Your task to perform on an android device: What's on my calendar today? Image 0: 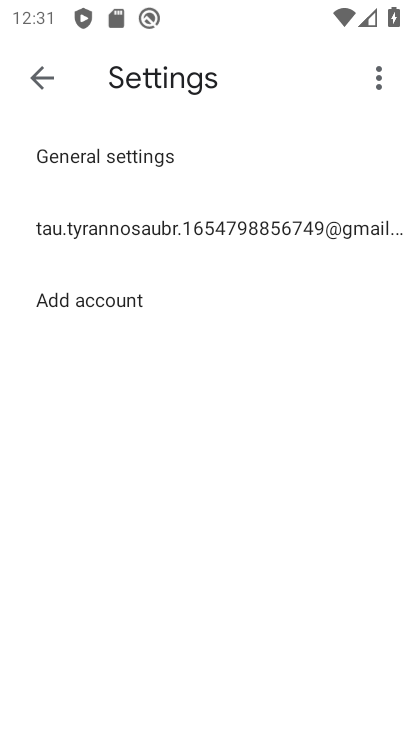
Step 0: press home button
Your task to perform on an android device: What's on my calendar today? Image 1: 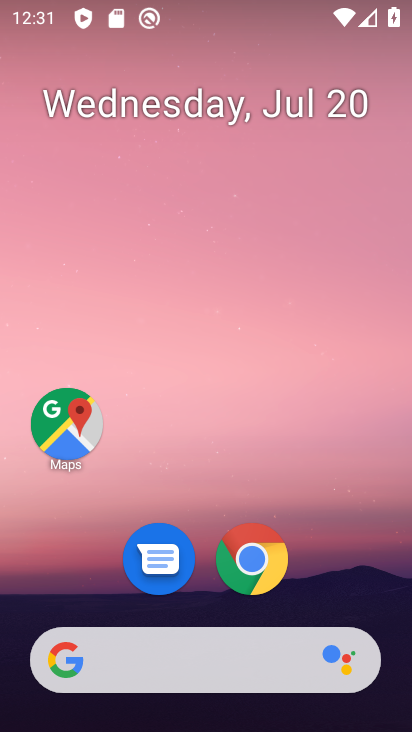
Step 1: drag from (356, 576) to (364, 99)
Your task to perform on an android device: What's on my calendar today? Image 2: 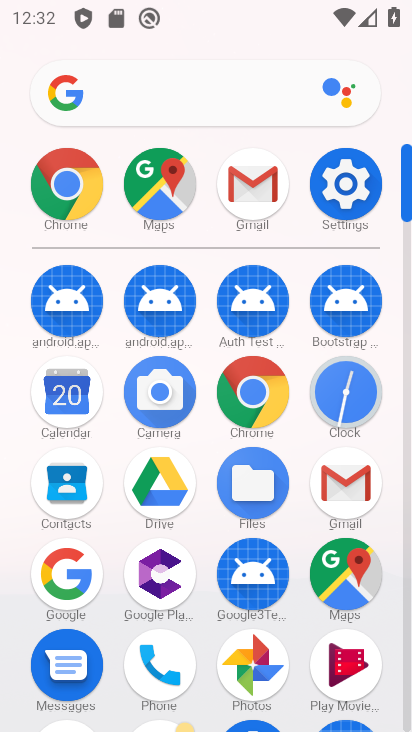
Step 2: click (68, 387)
Your task to perform on an android device: What's on my calendar today? Image 3: 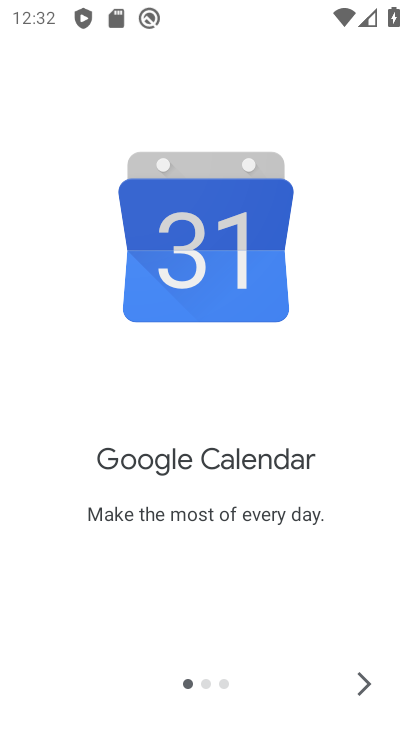
Step 3: click (346, 690)
Your task to perform on an android device: What's on my calendar today? Image 4: 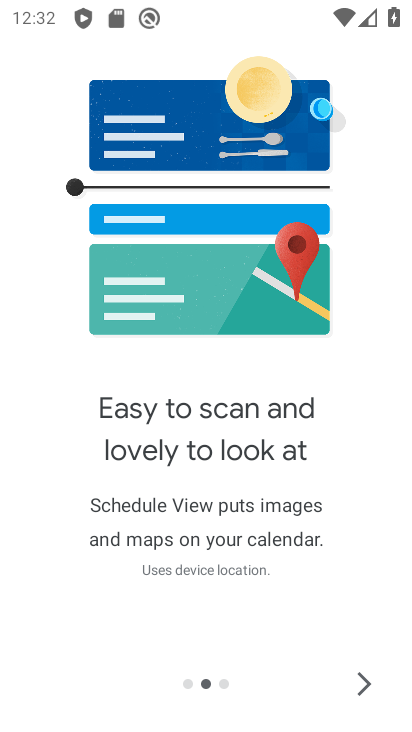
Step 4: click (346, 690)
Your task to perform on an android device: What's on my calendar today? Image 5: 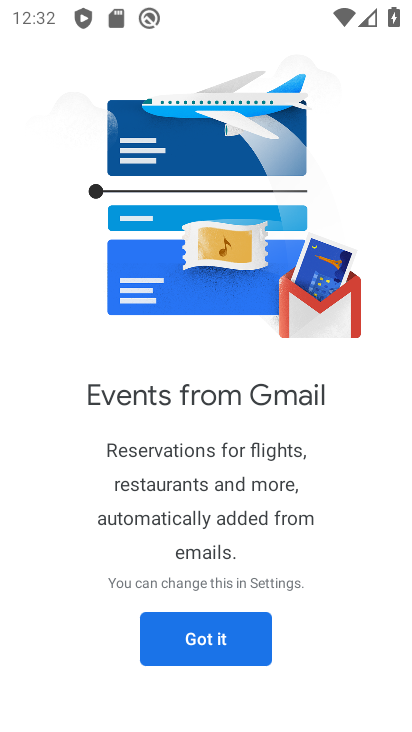
Step 5: click (346, 690)
Your task to perform on an android device: What's on my calendar today? Image 6: 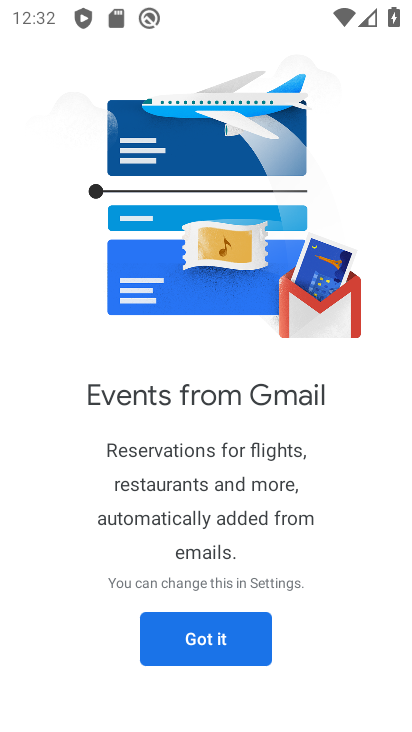
Step 6: click (209, 629)
Your task to perform on an android device: What's on my calendar today? Image 7: 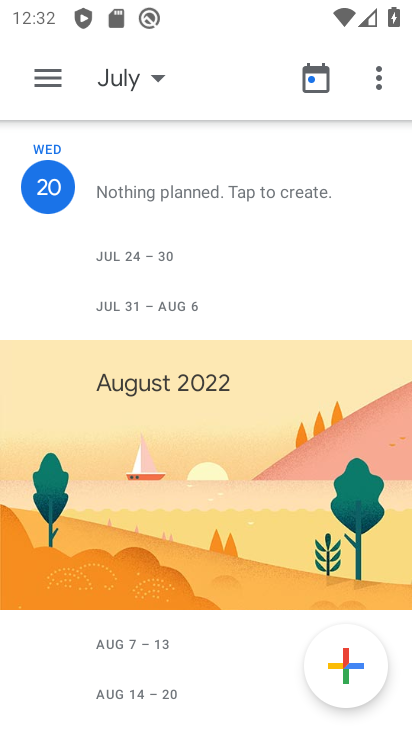
Step 7: task complete